Your task to perform on an android device: open app "Pinterest" (install if not already installed) Image 0: 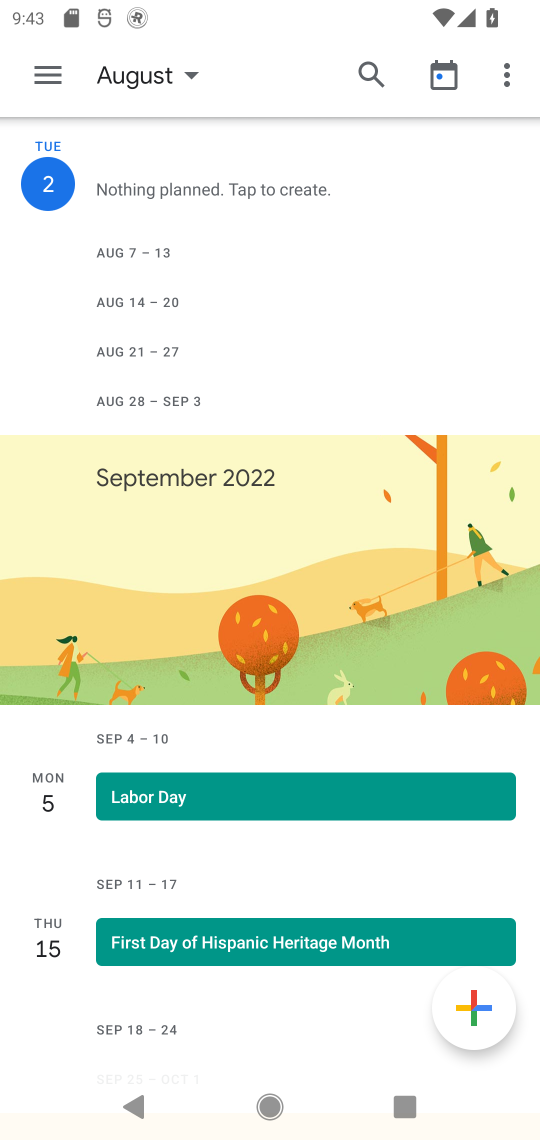
Step 0: press home button
Your task to perform on an android device: open app "Pinterest" (install if not already installed) Image 1: 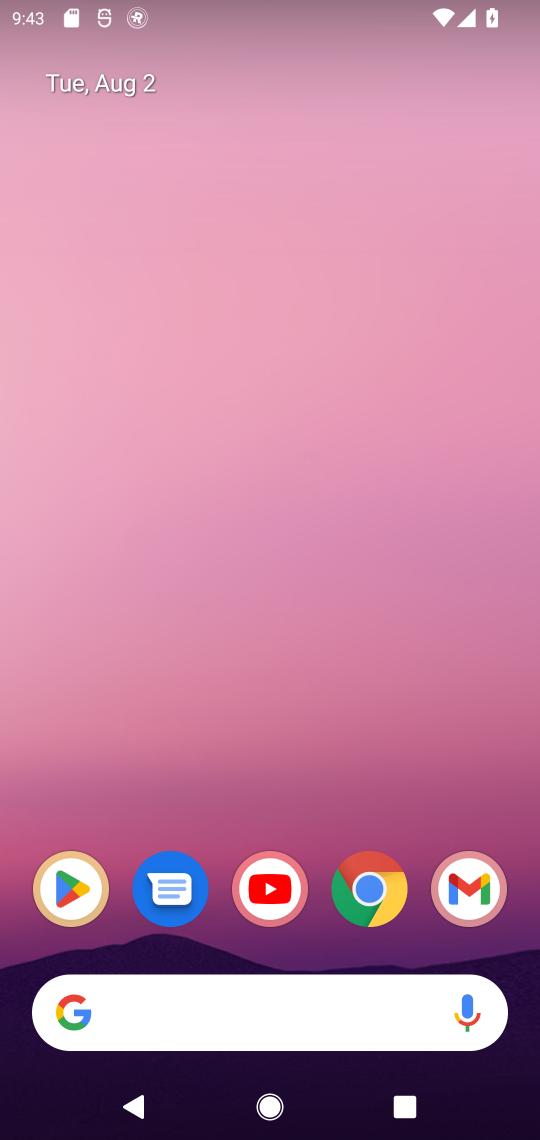
Step 1: click (66, 899)
Your task to perform on an android device: open app "Pinterest" (install if not already installed) Image 2: 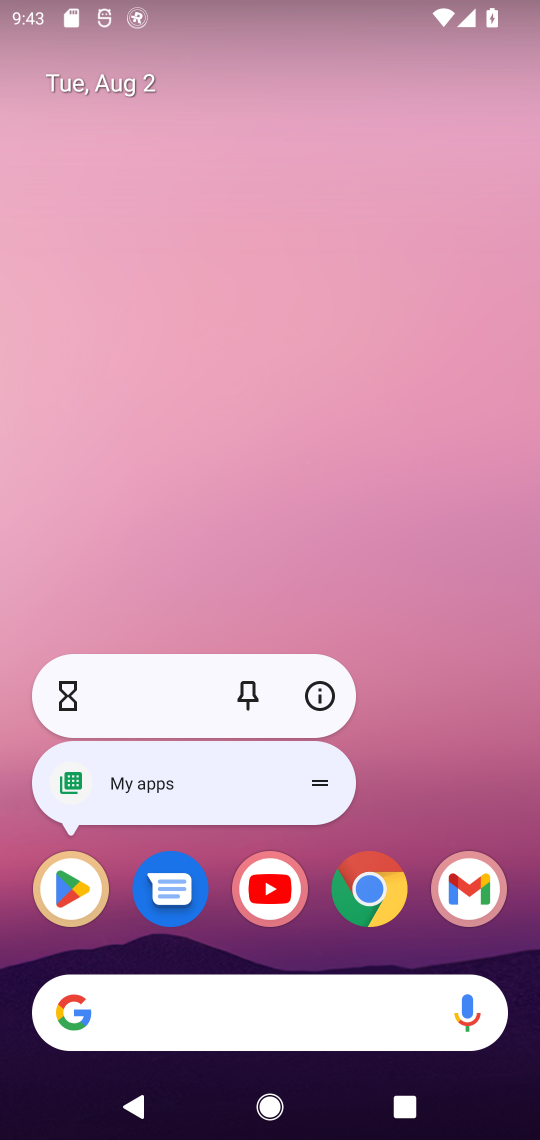
Step 2: click (73, 892)
Your task to perform on an android device: open app "Pinterest" (install if not already installed) Image 3: 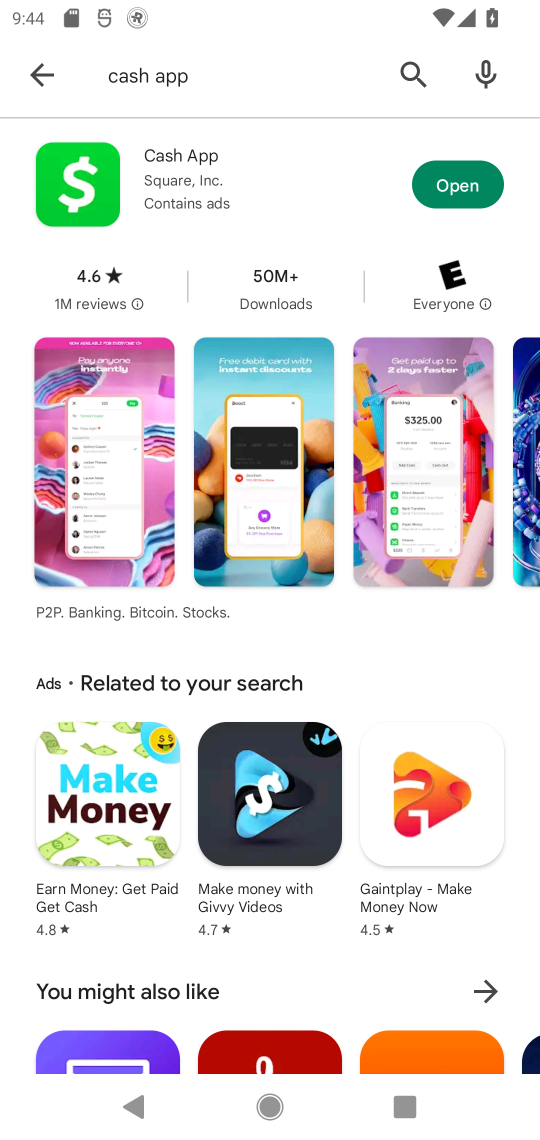
Step 3: click (414, 77)
Your task to perform on an android device: open app "Pinterest" (install if not already installed) Image 4: 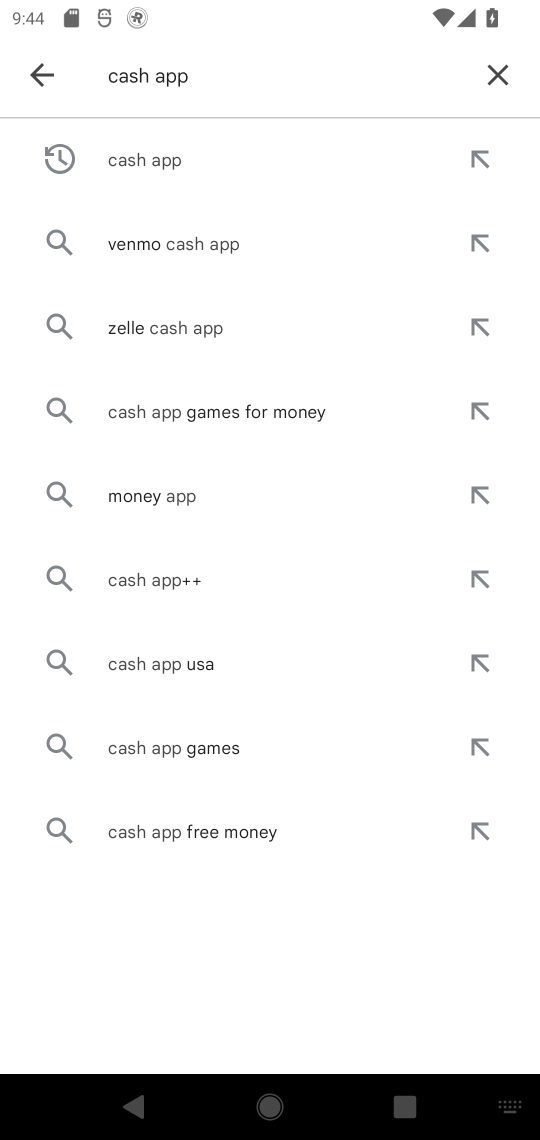
Step 4: click (501, 71)
Your task to perform on an android device: open app "Pinterest" (install if not already installed) Image 5: 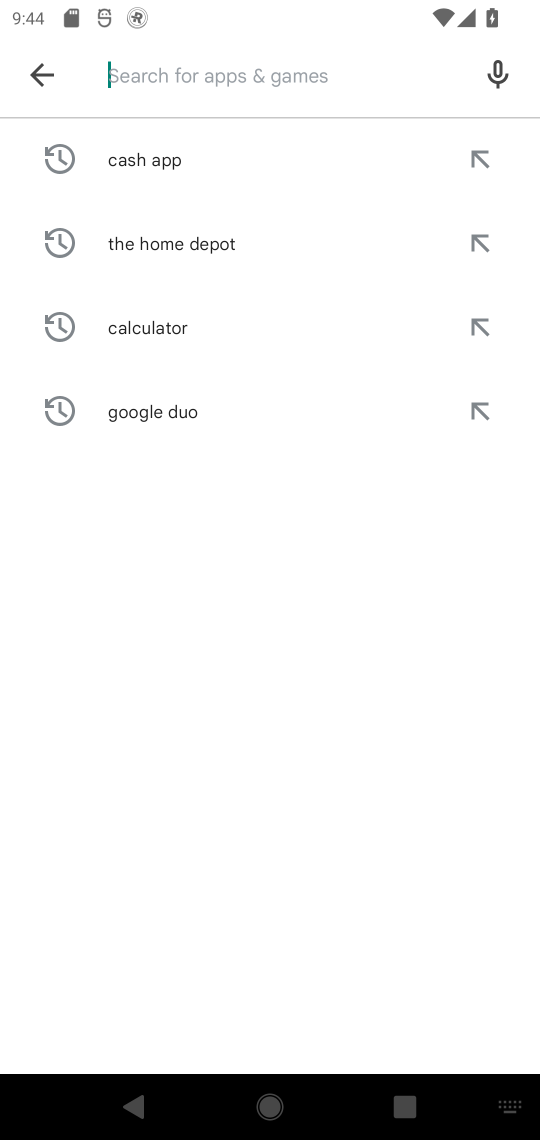
Step 5: type "Pinterest"
Your task to perform on an android device: open app "Pinterest" (install if not already installed) Image 6: 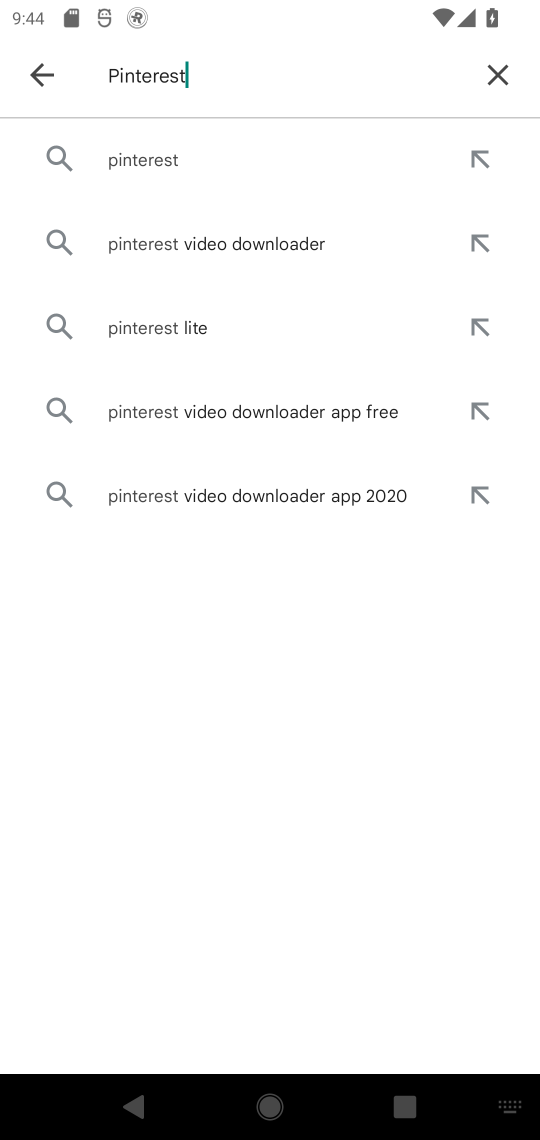
Step 6: click (176, 171)
Your task to perform on an android device: open app "Pinterest" (install if not already installed) Image 7: 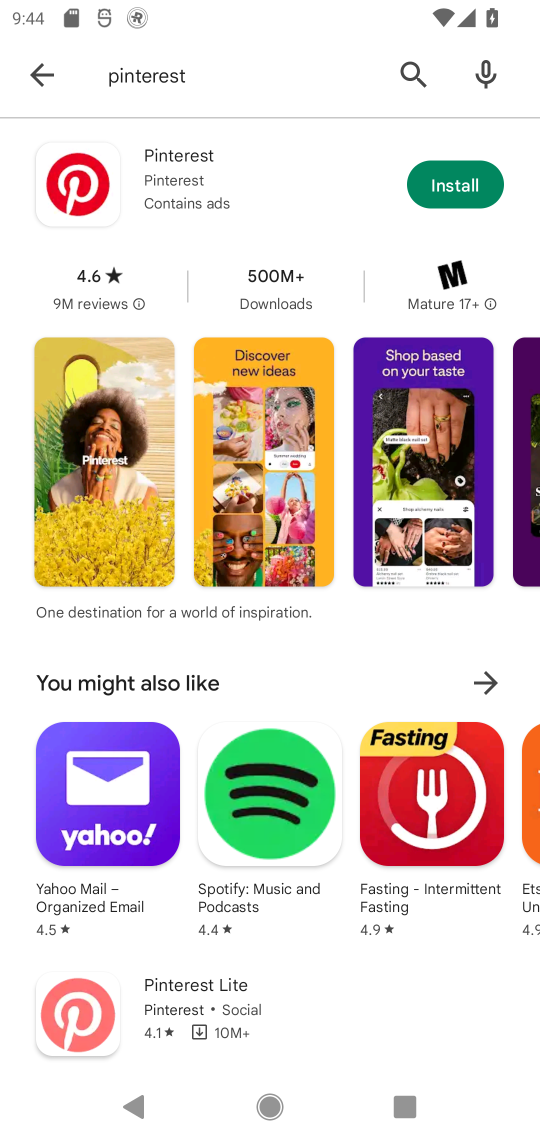
Step 7: click (460, 190)
Your task to perform on an android device: open app "Pinterest" (install if not already installed) Image 8: 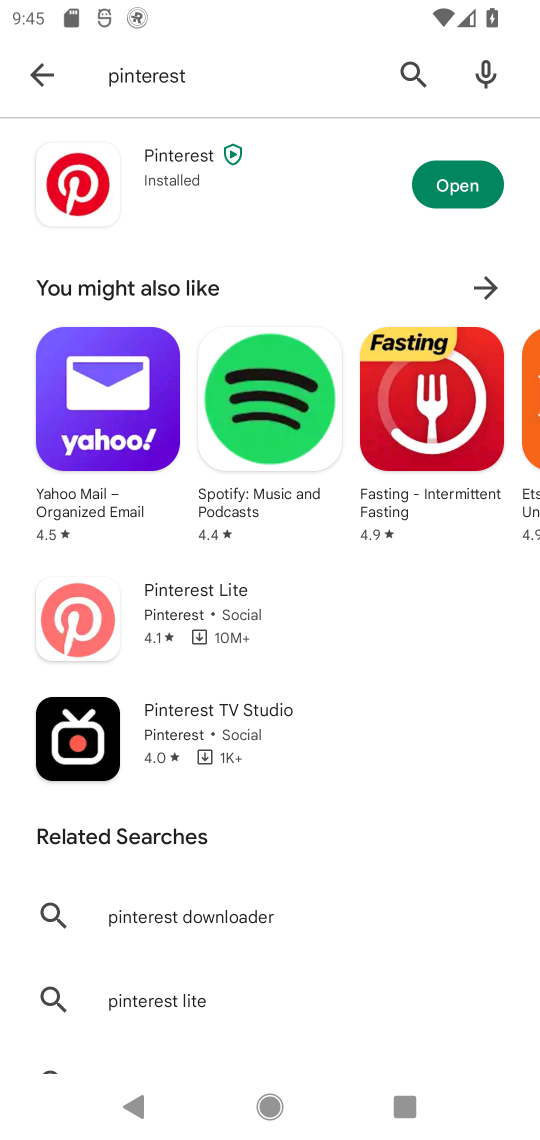
Step 8: click (475, 180)
Your task to perform on an android device: open app "Pinterest" (install if not already installed) Image 9: 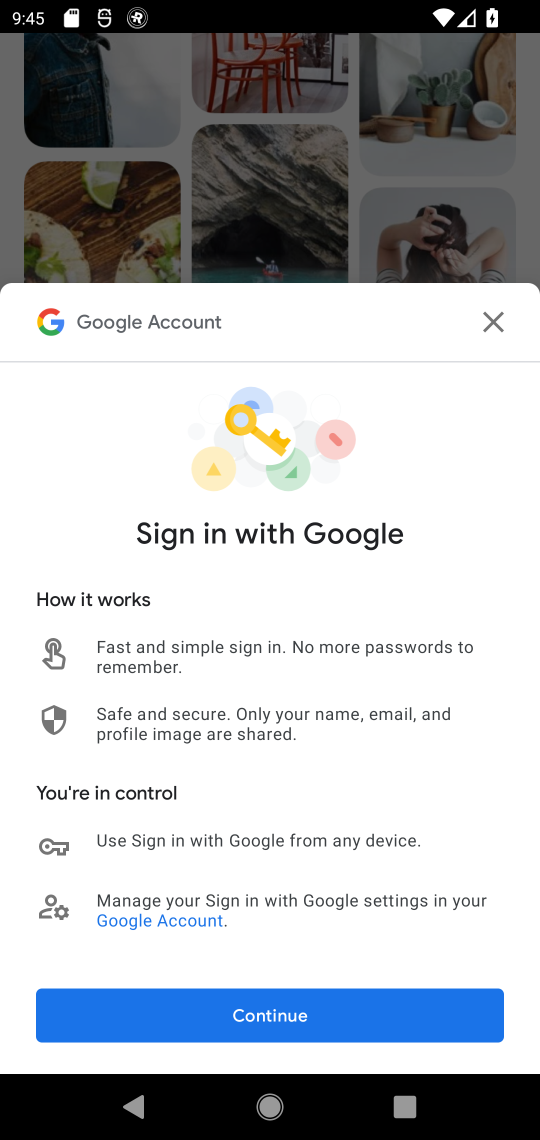
Step 9: task complete